Your task to perform on an android device: remove spam from my inbox in the gmail app Image 0: 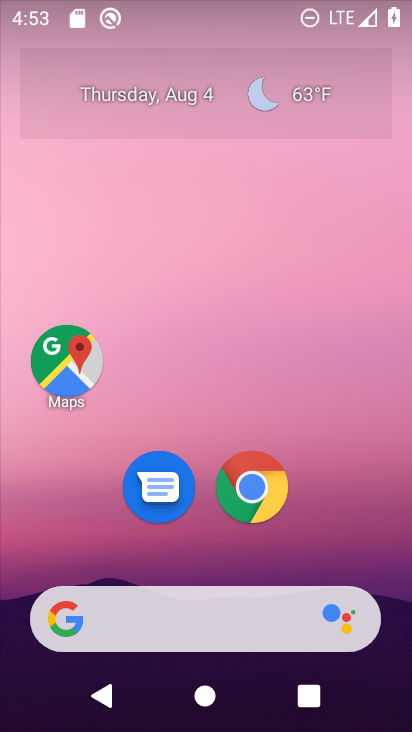
Step 0: drag from (138, 568) to (259, 47)
Your task to perform on an android device: remove spam from my inbox in the gmail app Image 1: 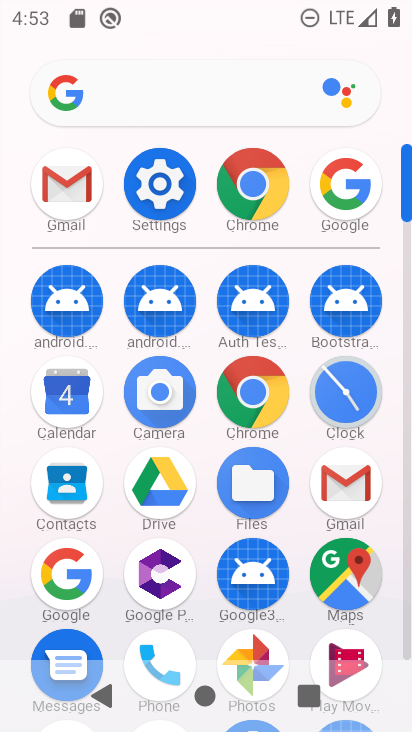
Step 1: click (90, 181)
Your task to perform on an android device: remove spam from my inbox in the gmail app Image 2: 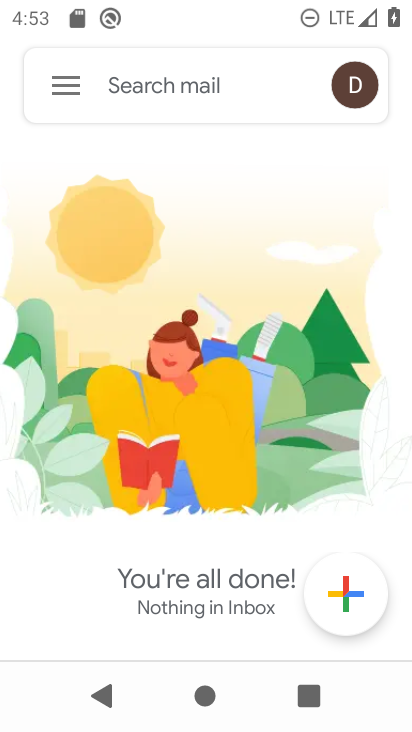
Step 2: click (67, 74)
Your task to perform on an android device: remove spam from my inbox in the gmail app Image 3: 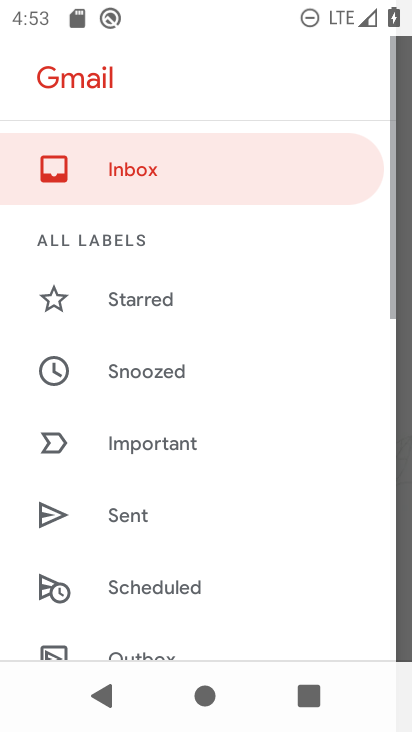
Step 3: drag from (115, 605) to (271, 13)
Your task to perform on an android device: remove spam from my inbox in the gmail app Image 4: 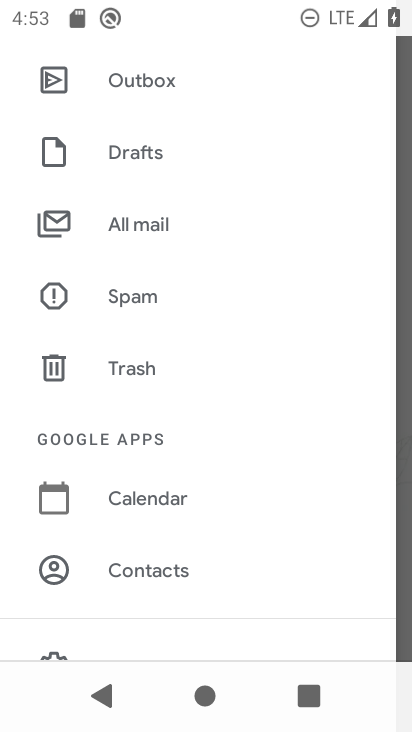
Step 4: drag from (177, 595) to (315, 43)
Your task to perform on an android device: remove spam from my inbox in the gmail app Image 5: 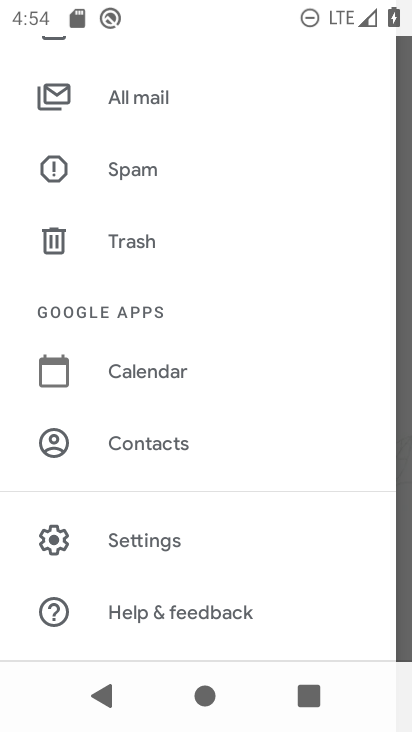
Step 5: click (160, 156)
Your task to perform on an android device: remove spam from my inbox in the gmail app Image 6: 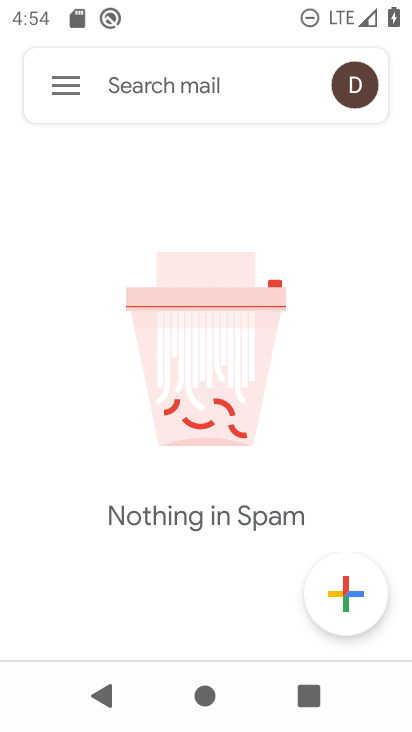
Step 6: task complete